Your task to perform on an android device: Open Youtube and go to the subscriptions tab Image 0: 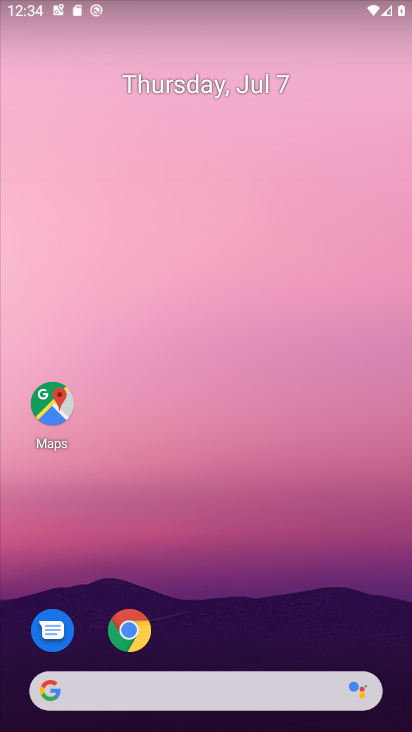
Step 0: drag from (223, 671) to (236, 327)
Your task to perform on an android device: Open Youtube and go to the subscriptions tab Image 1: 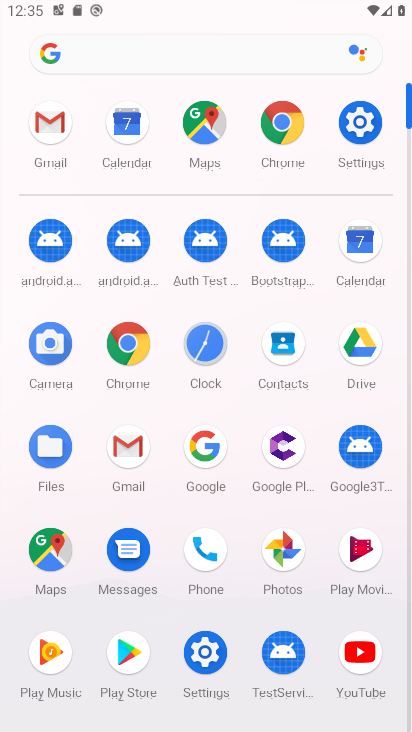
Step 1: click (354, 646)
Your task to perform on an android device: Open Youtube and go to the subscriptions tab Image 2: 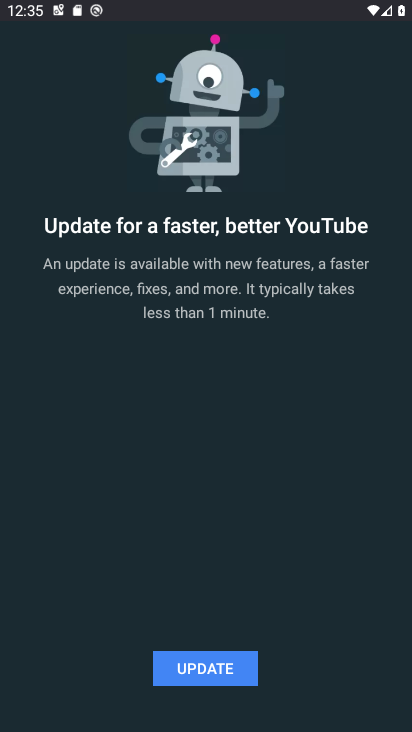
Step 2: task complete